Your task to perform on an android device: open app "DoorDash - Food Delivery" (install if not already installed) and go to login screen Image 0: 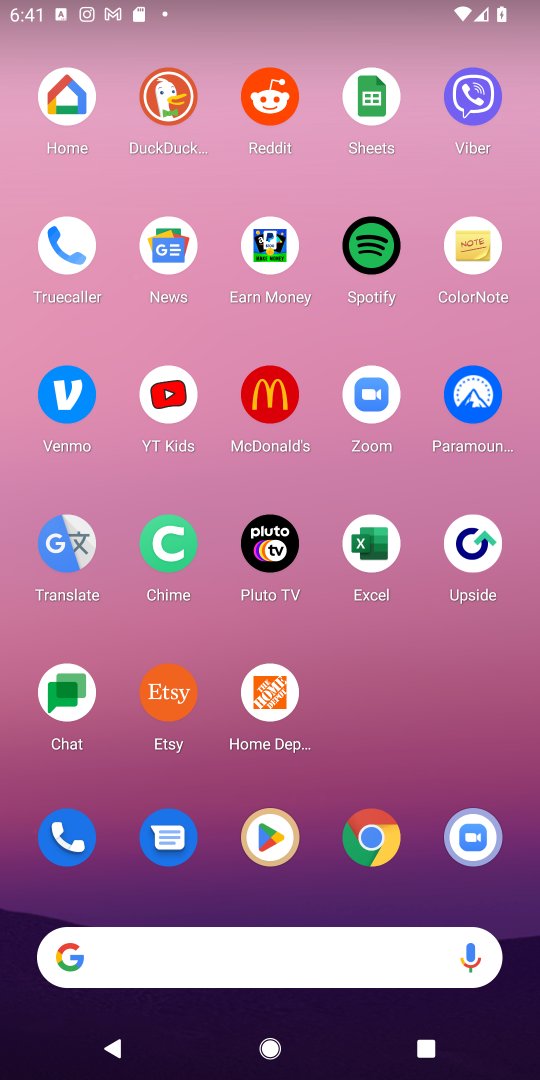
Step 0: press home button
Your task to perform on an android device: open app "DoorDash - Food Delivery" (install if not already installed) and go to login screen Image 1: 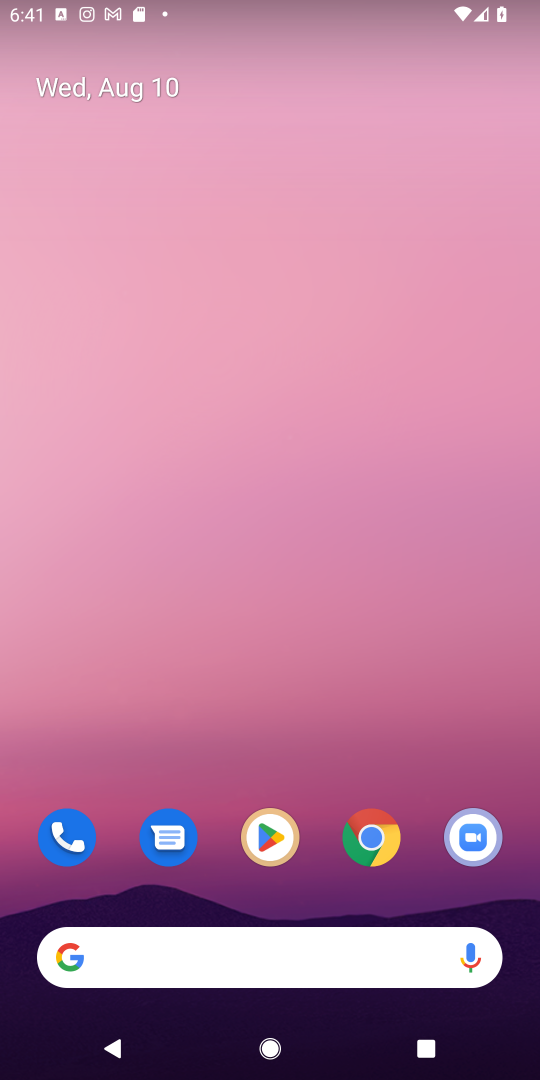
Step 1: click (268, 841)
Your task to perform on an android device: open app "DoorDash - Food Delivery" (install if not already installed) and go to login screen Image 2: 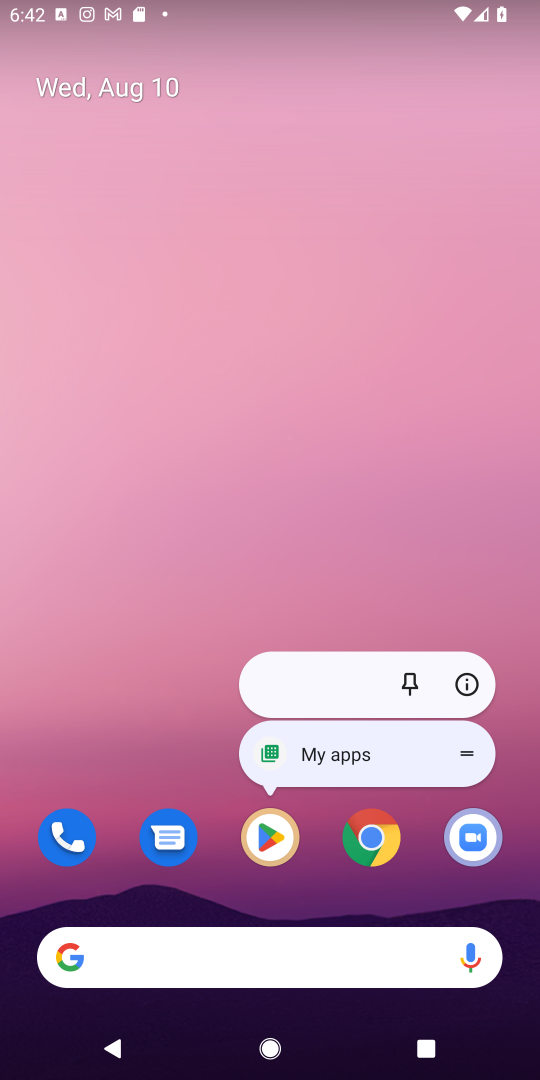
Step 2: click (268, 839)
Your task to perform on an android device: open app "DoorDash - Food Delivery" (install if not already installed) and go to login screen Image 3: 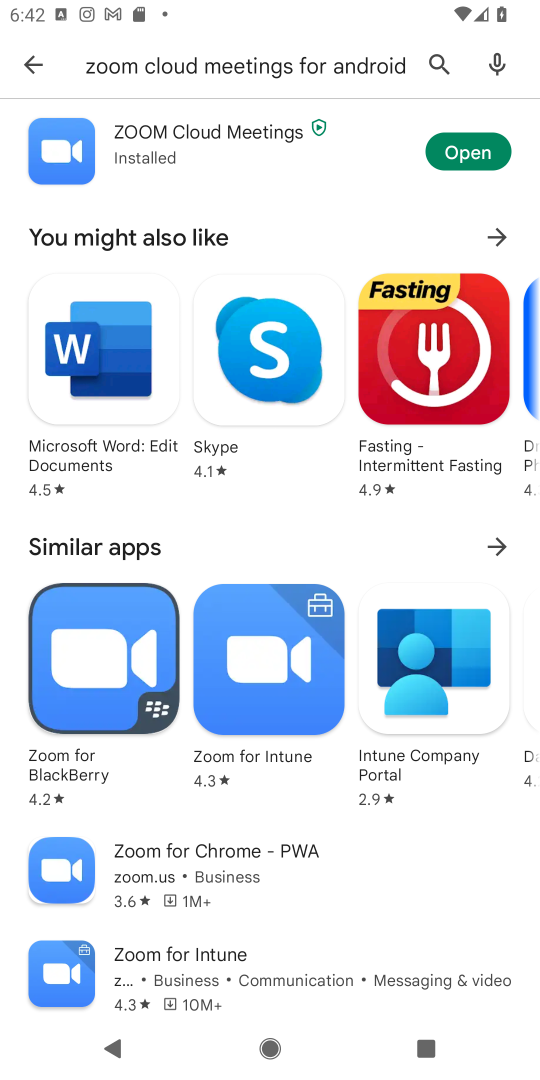
Step 3: click (430, 65)
Your task to perform on an android device: open app "DoorDash - Food Delivery" (install if not already installed) and go to login screen Image 4: 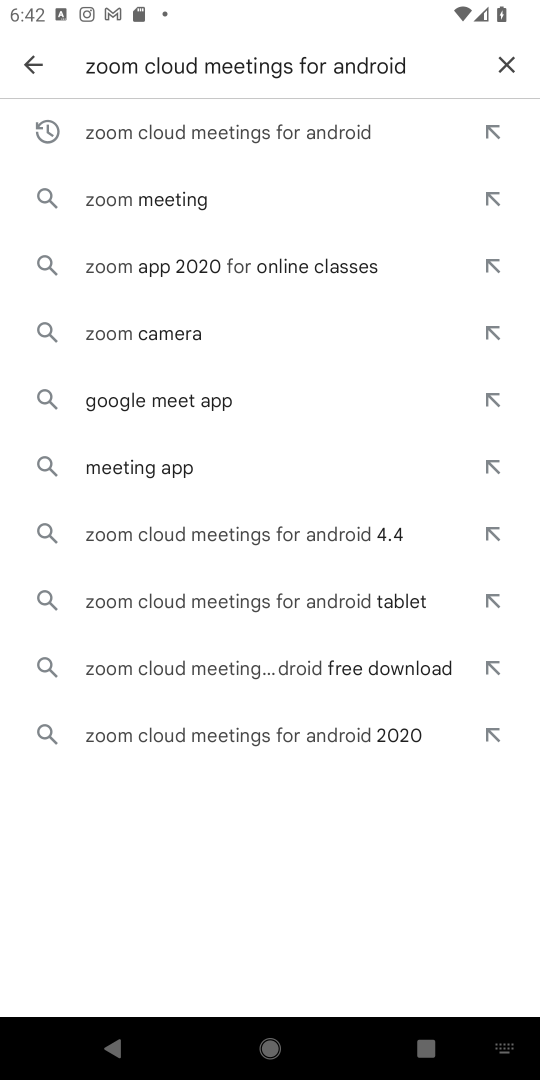
Step 4: click (504, 66)
Your task to perform on an android device: open app "DoorDash - Food Delivery" (install if not already installed) and go to login screen Image 5: 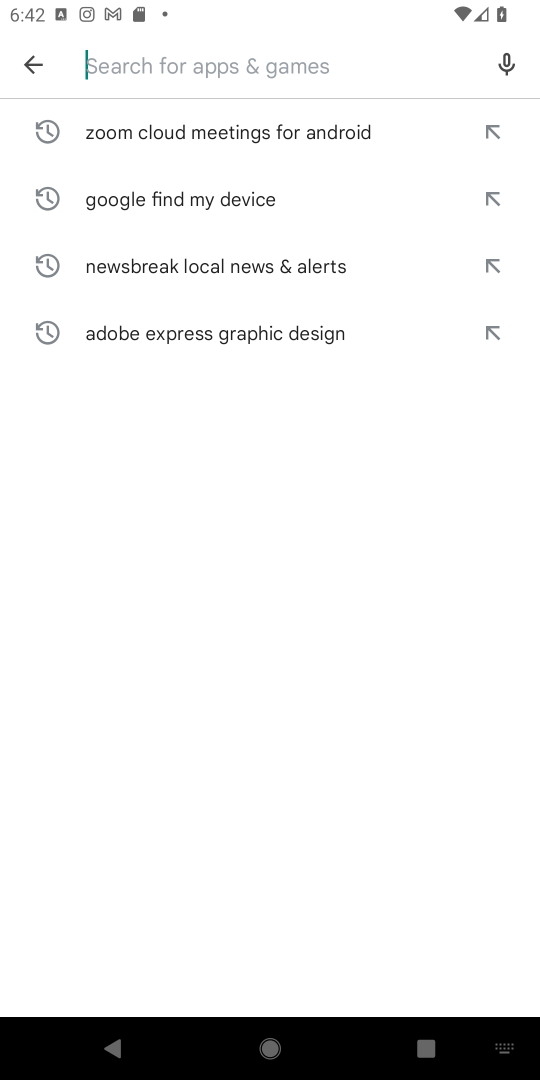
Step 5: type "DoorDash - Food Delivery"
Your task to perform on an android device: open app "DoorDash - Food Delivery" (install if not already installed) and go to login screen Image 6: 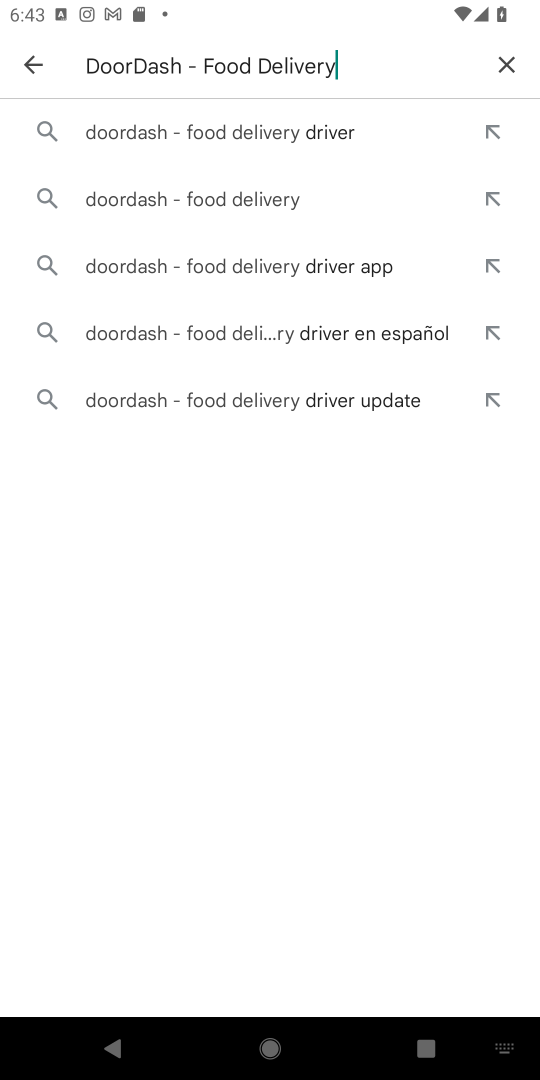
Step 6: click (184, 131)
Your task to perform on an android device: open app "DoorDash - Food Delivery" (install if not already installed) and go to login screen Image 7: 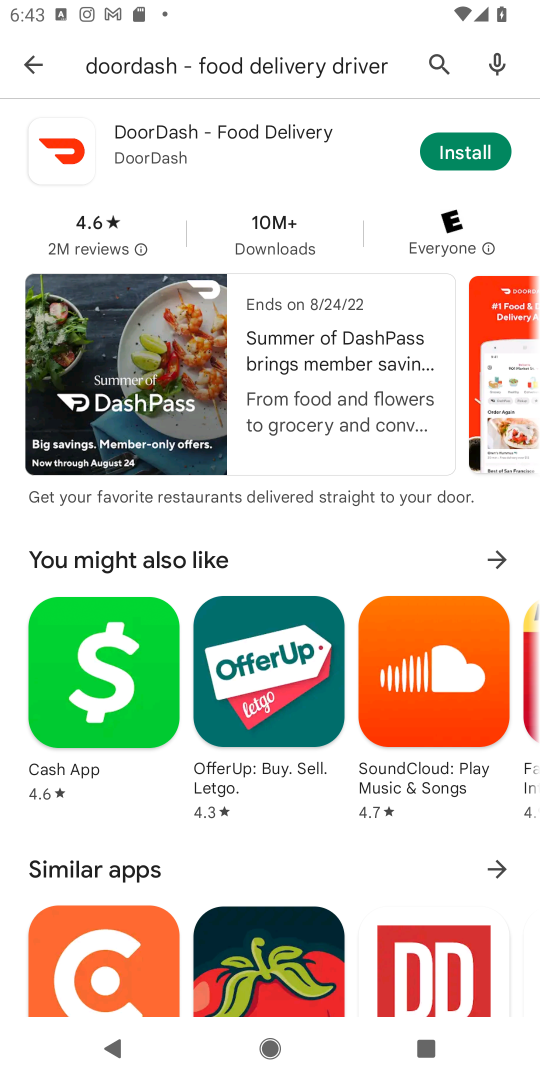
Step 7: click (453, 138)
Your task to perform on an android device: open app "DoorDash - Food Delivery" (install if not already installed) and go to login screen Image 8: 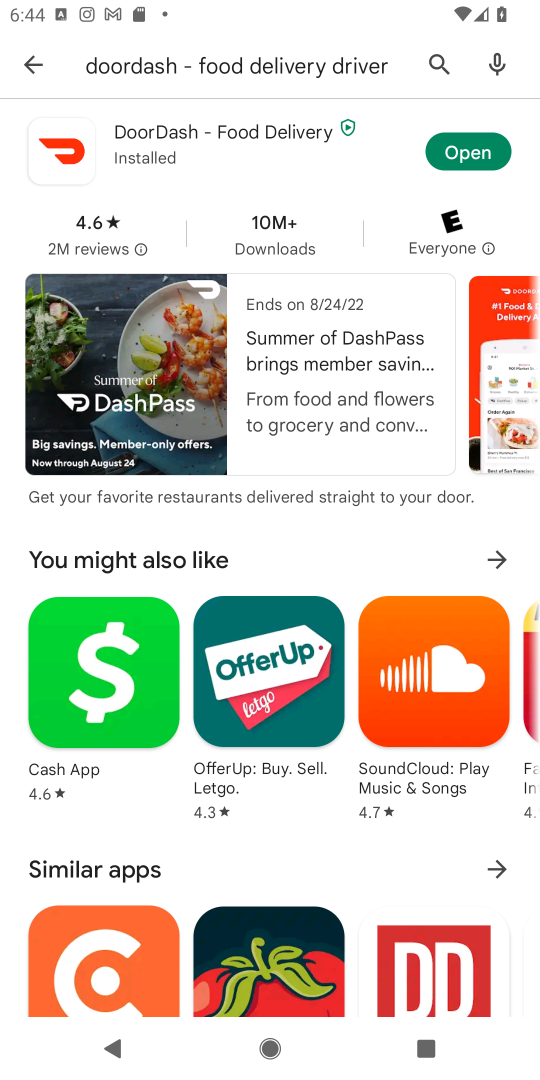
Step 8: click (476, 179)
Your task to perform on an android device: open app "DoorDash - Food Delivery" (install if not already installed) and go to login screen Image 9: 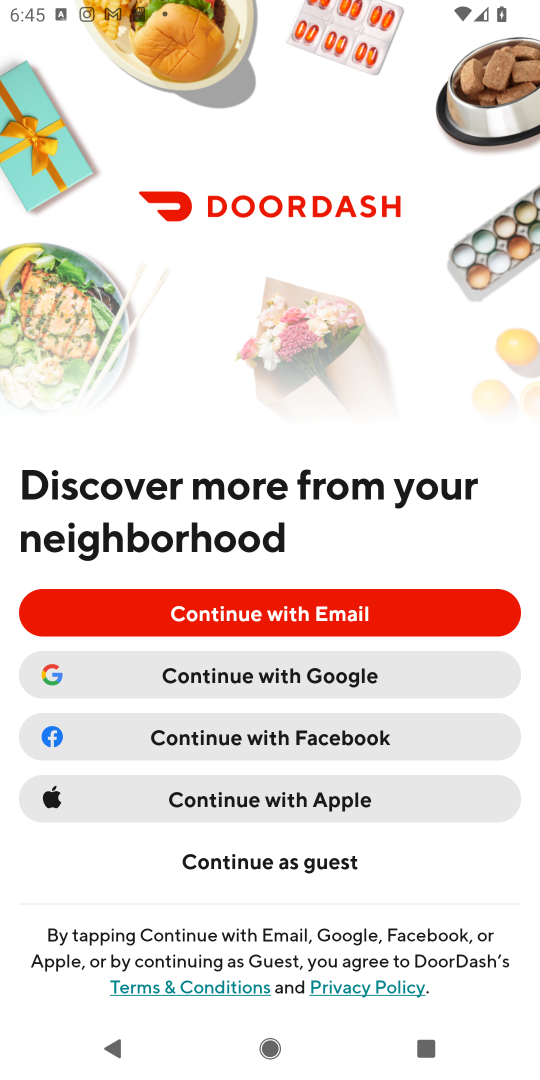
Step 9: task complete